Your task to perform on an android device: install app "Facebook Messenger" Image 0: 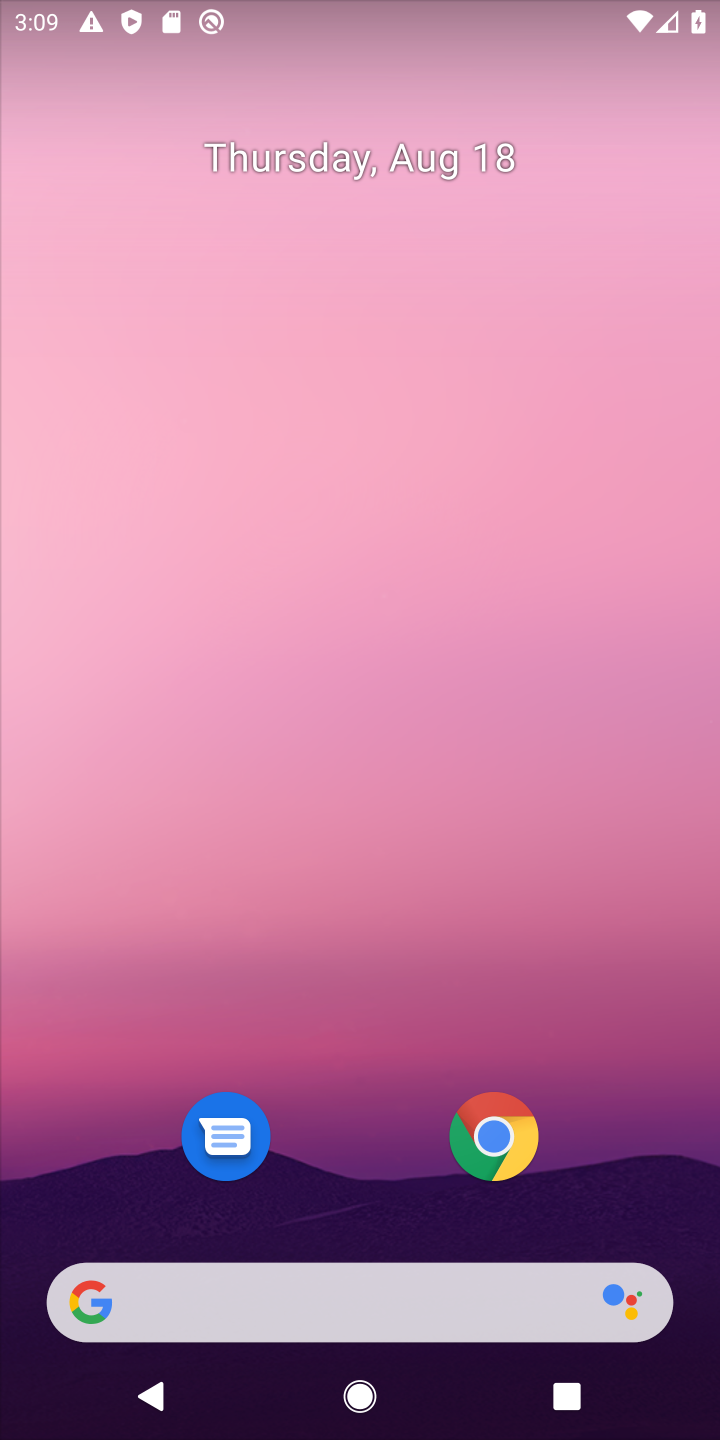
Step 0: click (364, 58)
Your task to perform on an android device: install app "Facebook Messenger" Image 1: 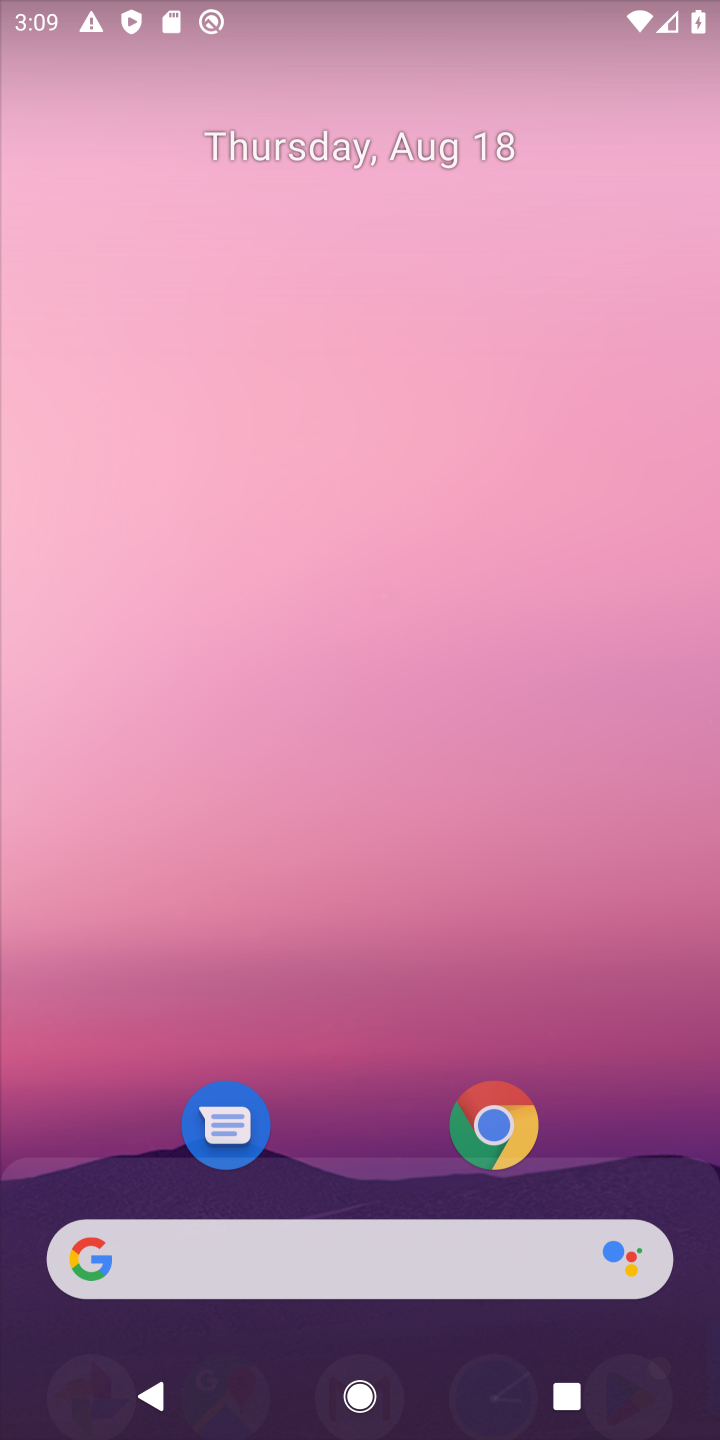
Step 1: drag from (343, 892) to (376, 213)
Your task to perform on an android device: install app "Facebook Messenger" Image 2: 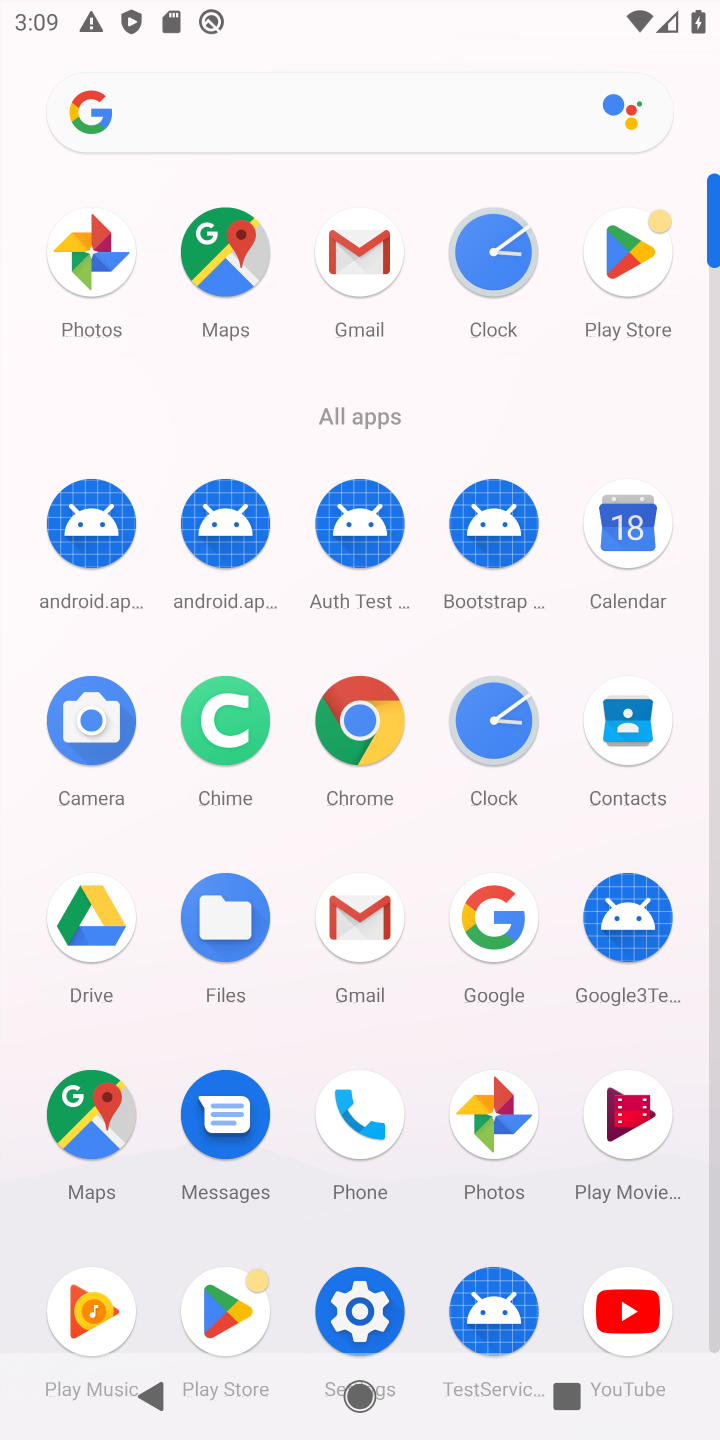
Step 2: click (632, 279)
Your task to perform on an android device: install app "Facebook Messenger" Image 3: 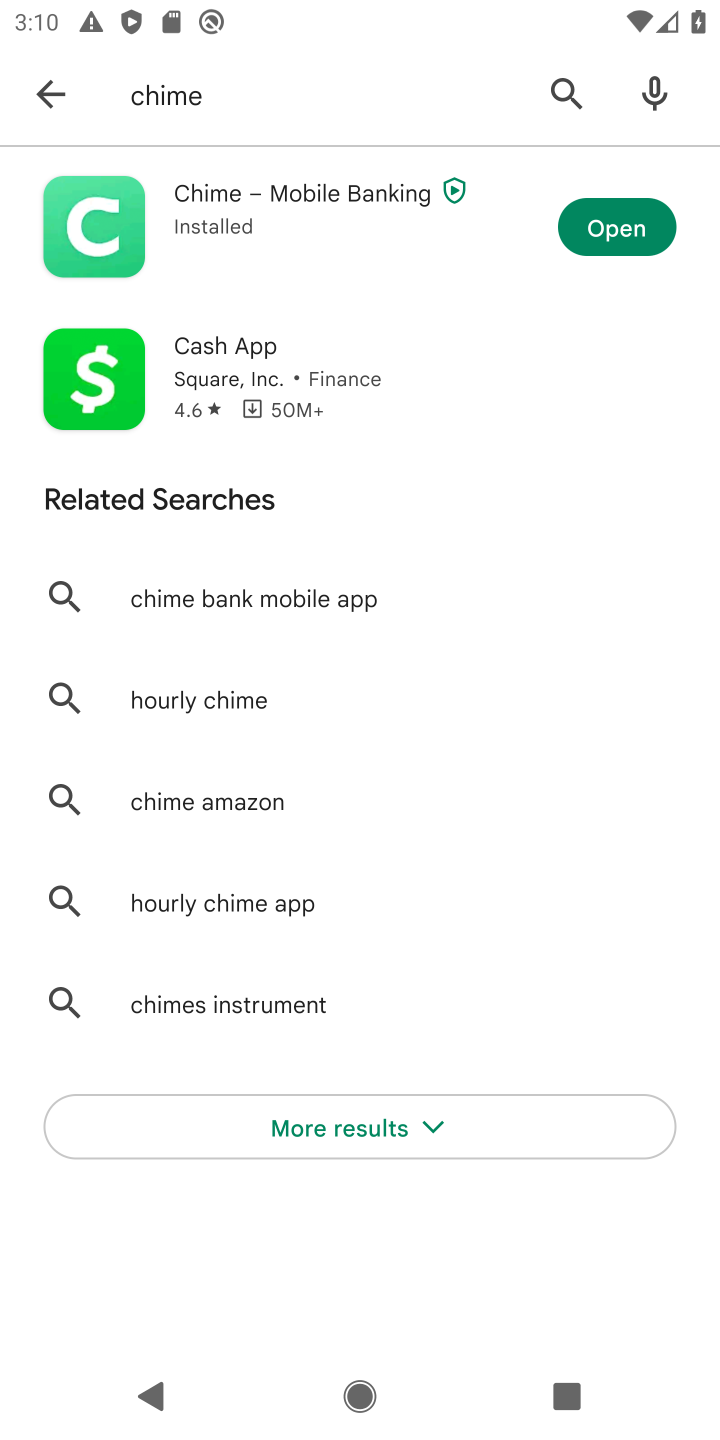
Step 3: click (258, 83)
Your task to perform on an android device: install app "Facebook Messenger" Image 4: 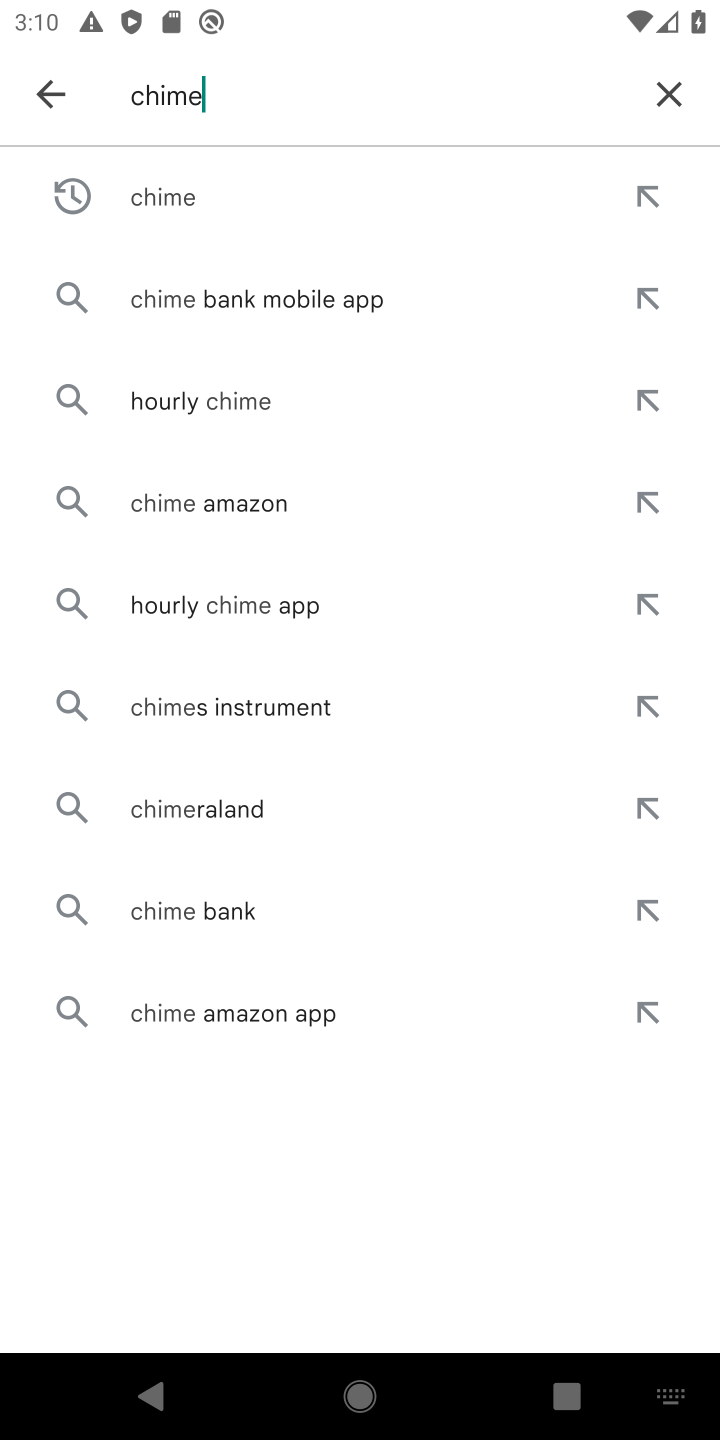
Step 4: click (671, 75)
Your task to perform on an android device: install app "Facebook Messenger" Image 5: 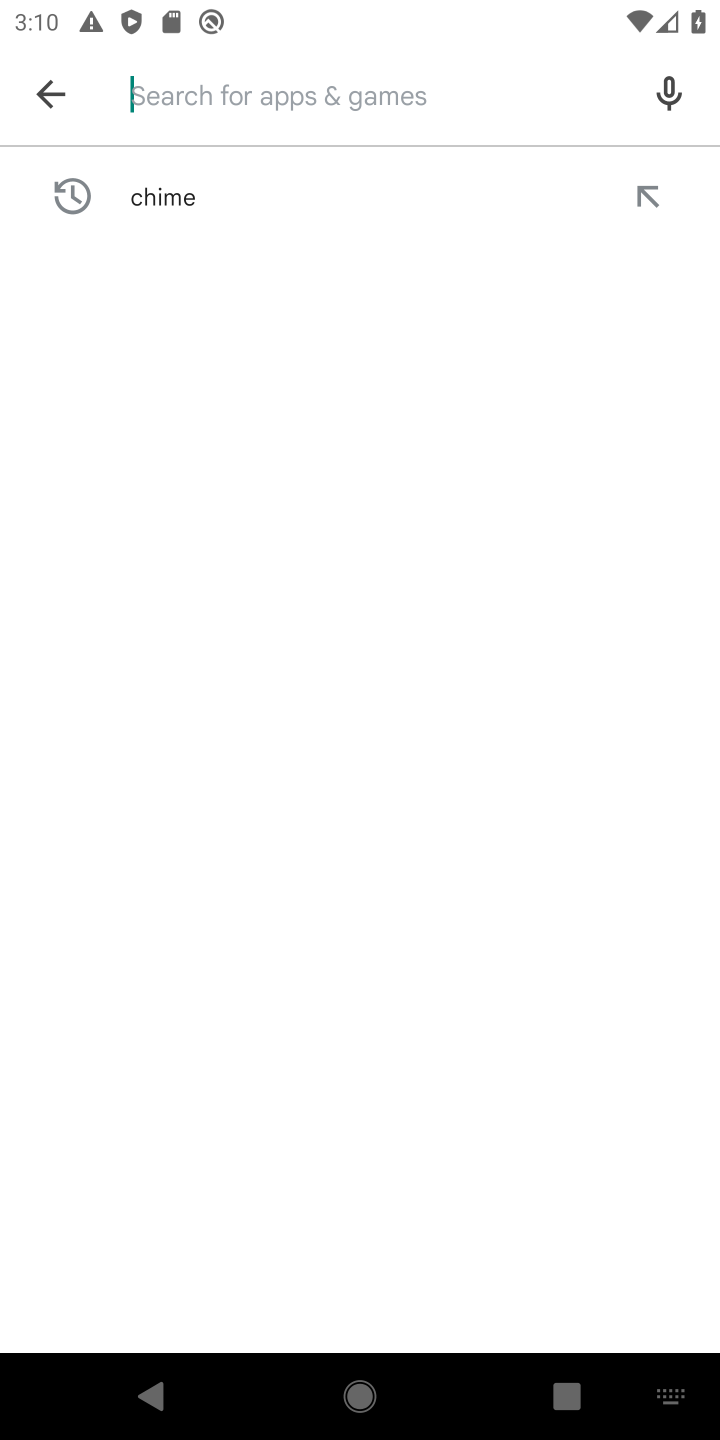
Step 5: type "facebook messenger"
Your task to perform on an android device: install app "Facebook Messenger" Image 6: 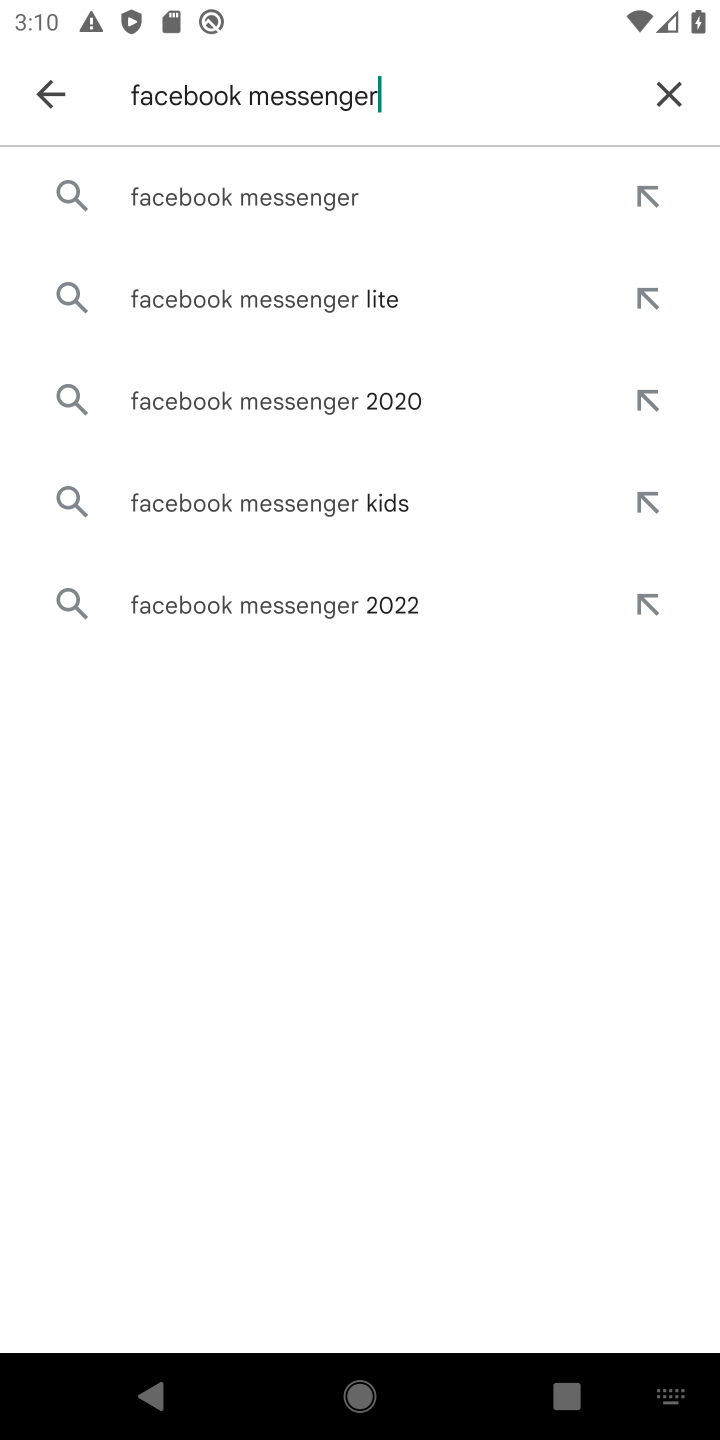
Step 6: click (230, 212)
Your task to perform on an android device: install app "Facebook Messenger" Image 7: 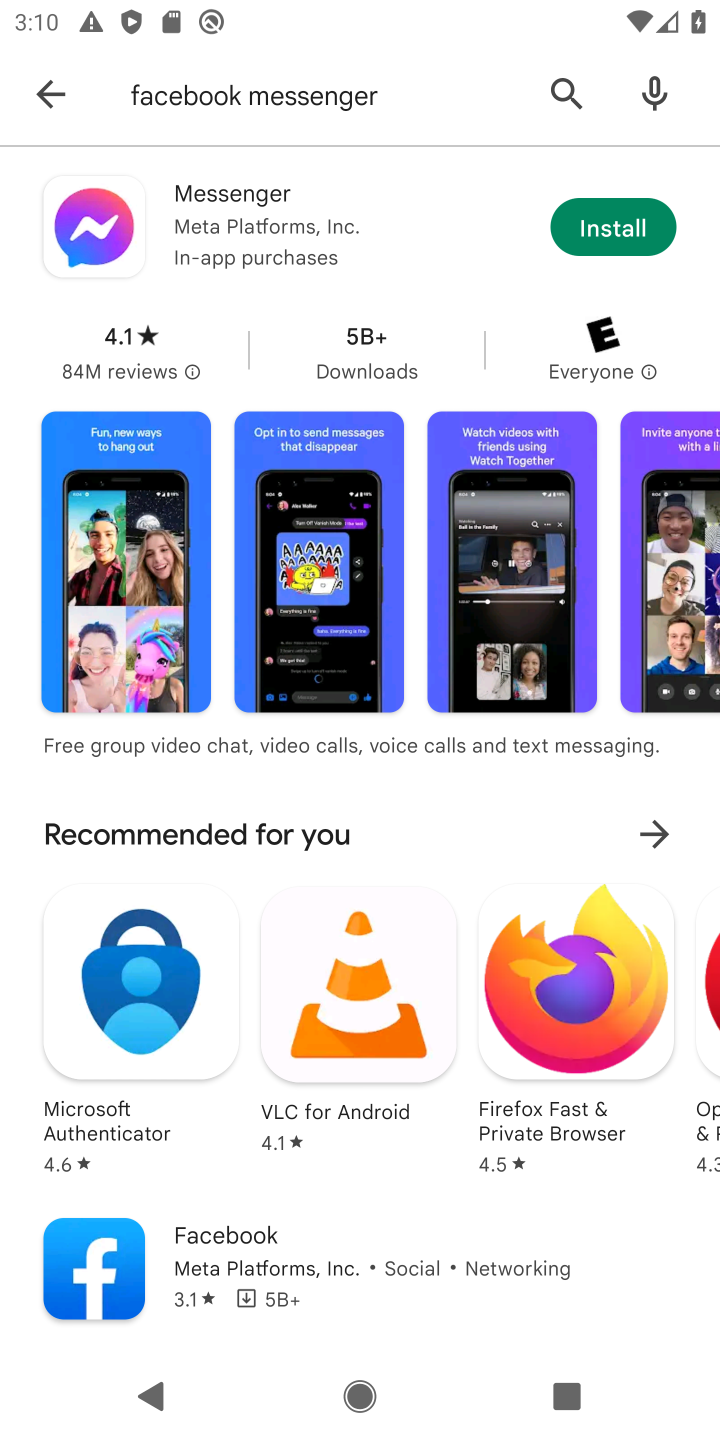
Step 7: click (619, 226)
Your task to perform on an android device: install app "Facebook Messenger" Image 8: 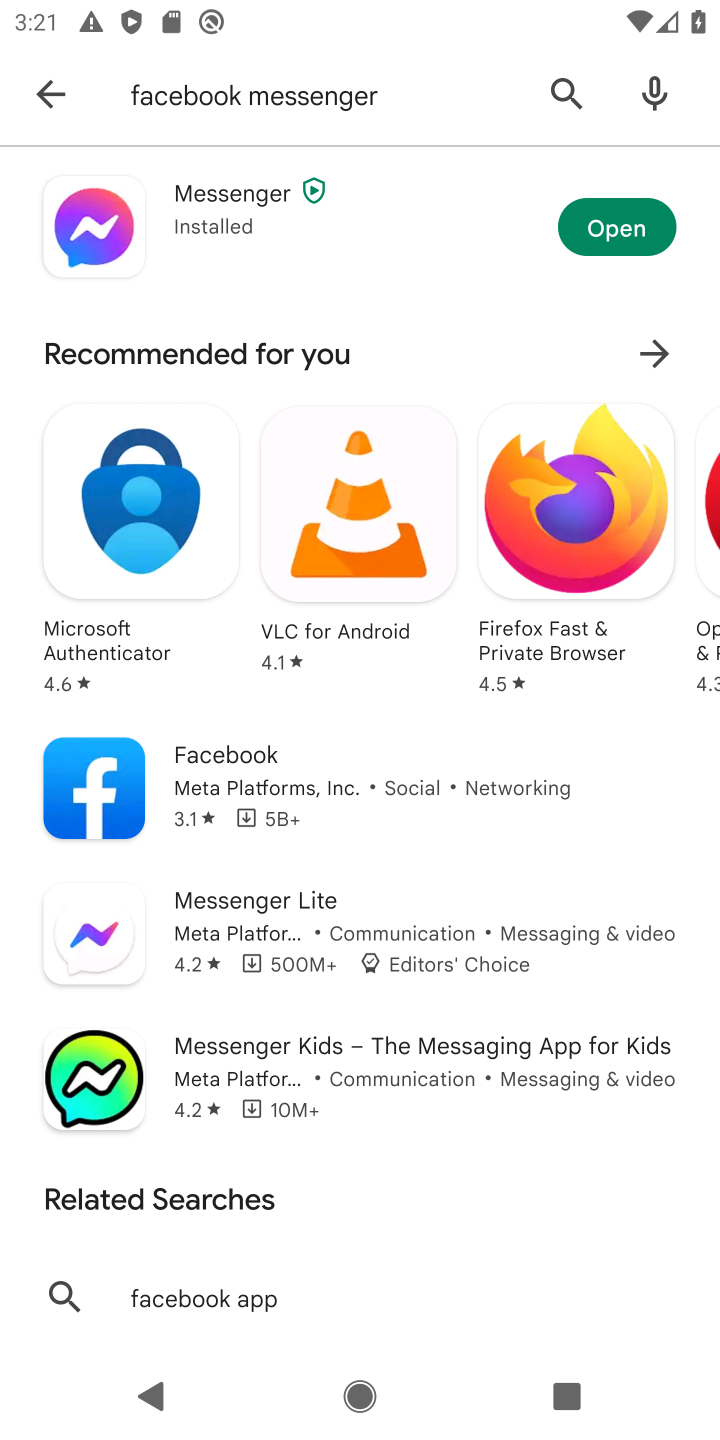
Step 8: task complete